Your task to perform on an android device: toggle javascript in the chrome app Image 0: 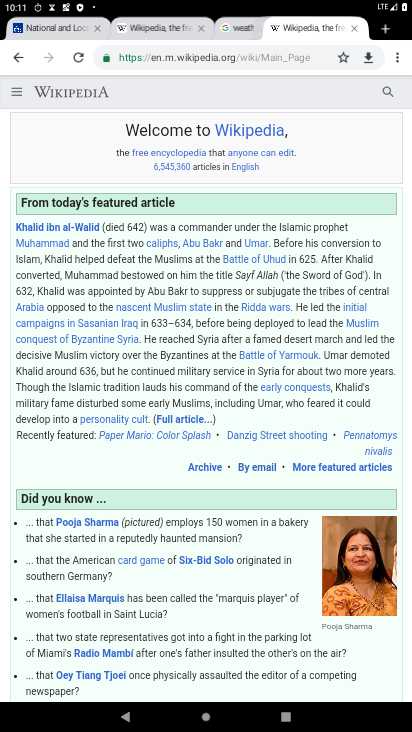
Step 0: click (398, 60)
Your task to perform on an android device: toggle javascript in the chrome app Image 1: 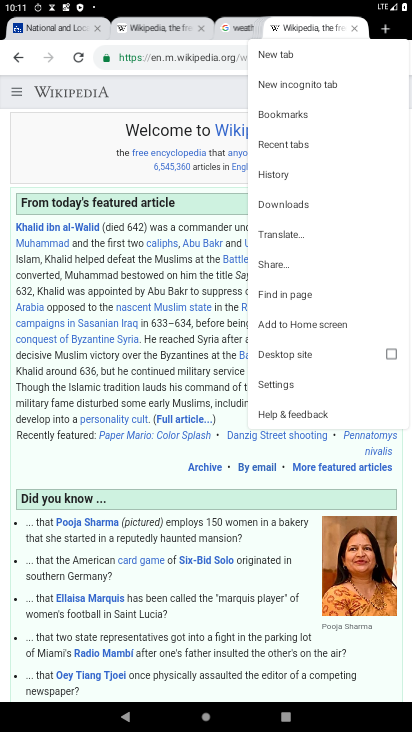
Step 1: click (282, 385)
Your task to perform on an android device: toggle javascript in the chrome app Image 2: 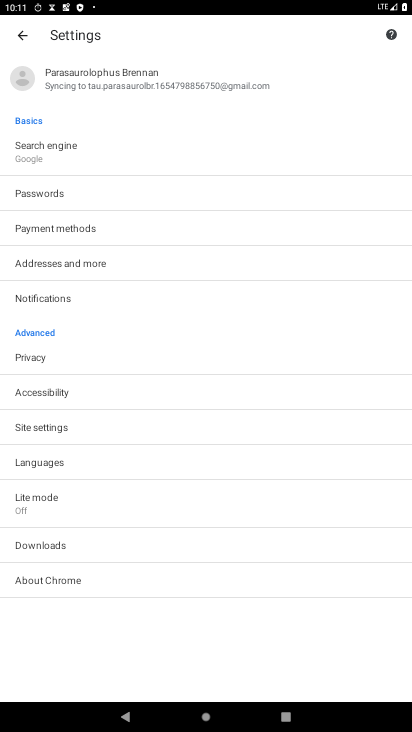
Step 2: click (44, 426)
Your task to perform on an android device: toggle javascript in the chrome app Image 3: 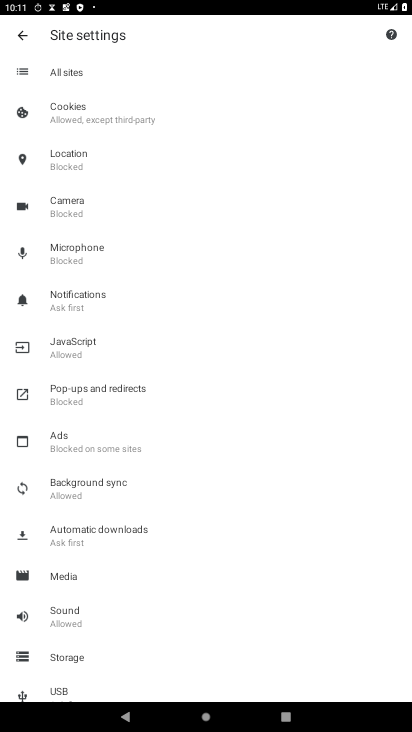
Step 3: click (68, 342)
Your task to perform on an android device: toggle javascript in the chrome app Image 4: 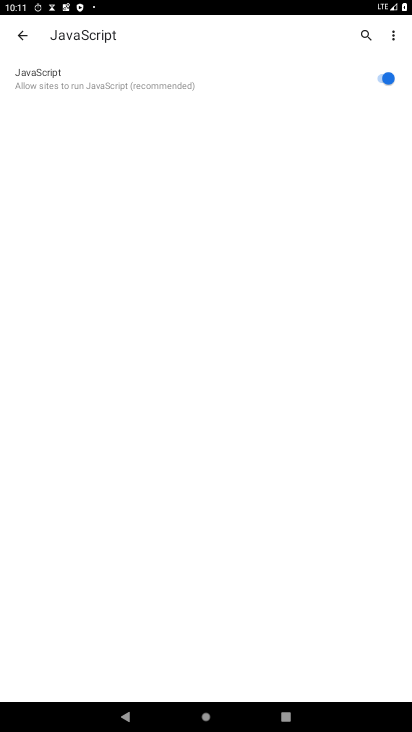
Step 4: click (380, 79)
Your task to perform on an android device: toggle javascript in the chrome app Image 5: 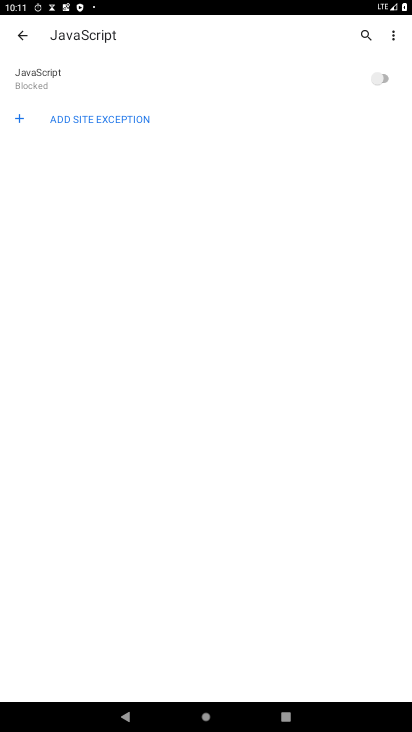
Step 5: task complete